Your task to perform on an android device: find snoozed emails in the gmail app Image 0: 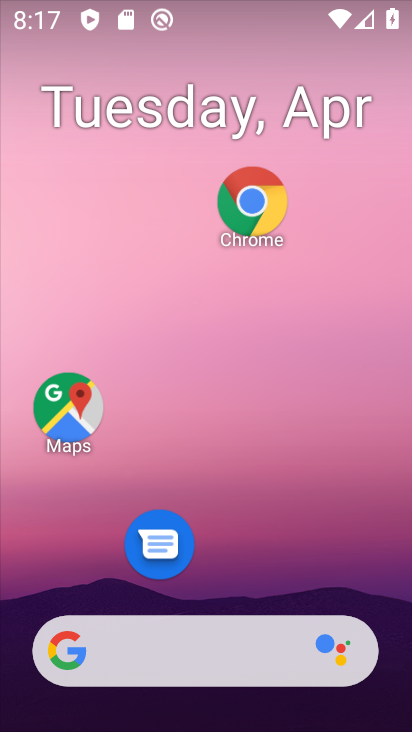
Step 0: drag from (301, 471) to (352, 189)
Your task to perform on an android device: find snoozed emails in the gmail app Image 1: 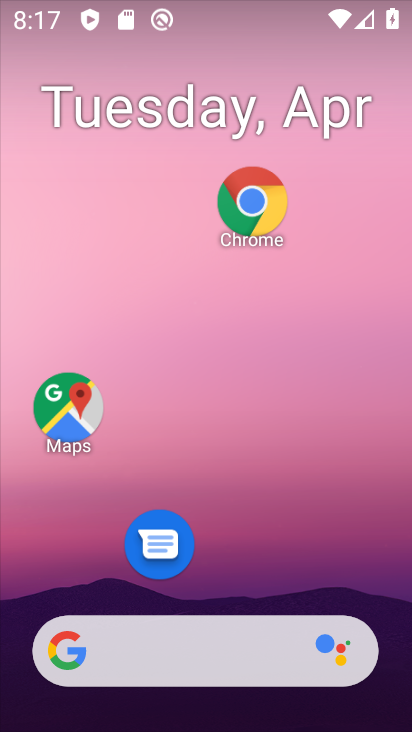
Step 1: drag from (255, 560) to (274, 117)
Your task to perform on an android device: find snoozed emails in the gmail app Image 2: 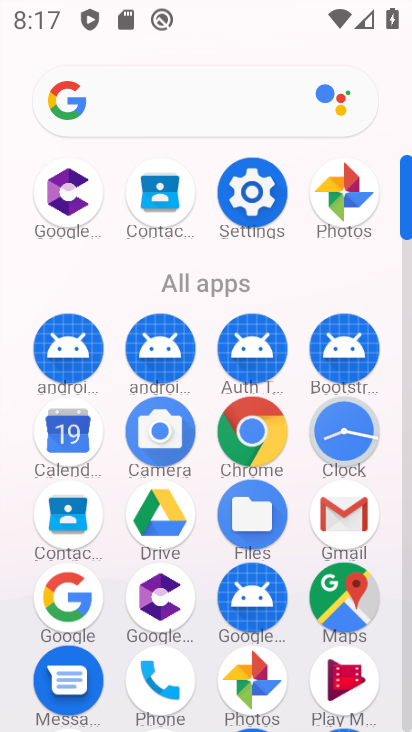
Step 2: click (355, 514)
Your task to perform on an android device: find snoozed emails in the gmail app Image 3: 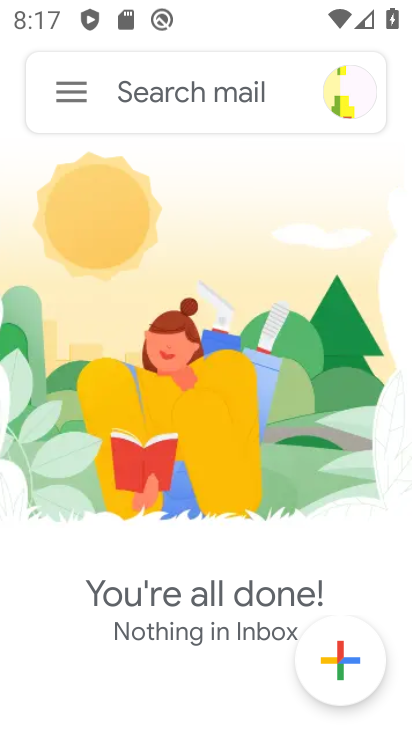
Step 3: click (70, 91)
Your task to perform on an android device: find snoozed emails in the gmail app Image 4: 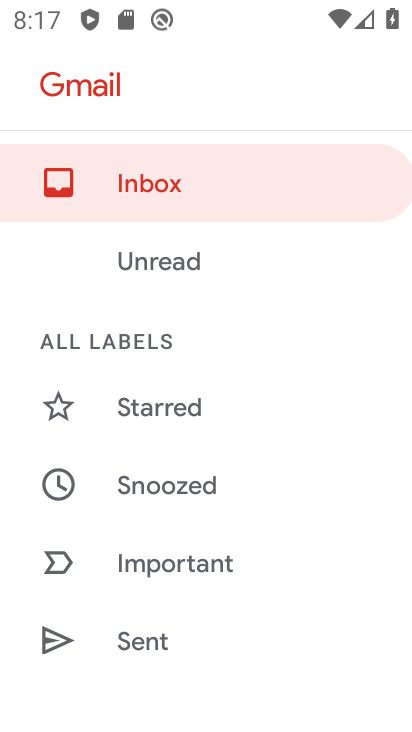
Step 4: click (201, 486)
Your task to perform on an android device: find snoozed emails in the gmail app Image 5: 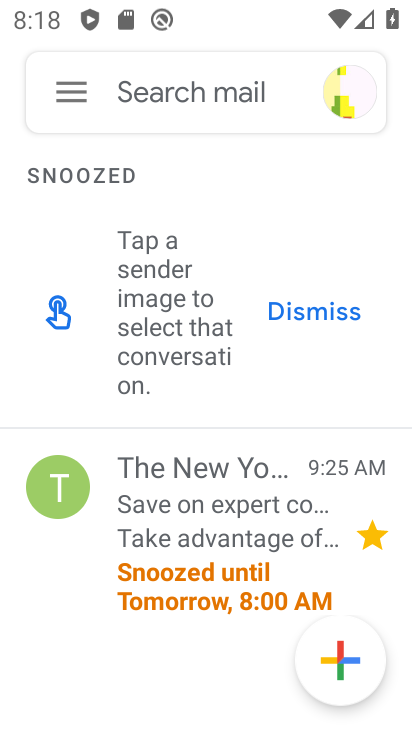
Step 5: task complete